Your task to perform on an android device: Go to Android settings Image 0: 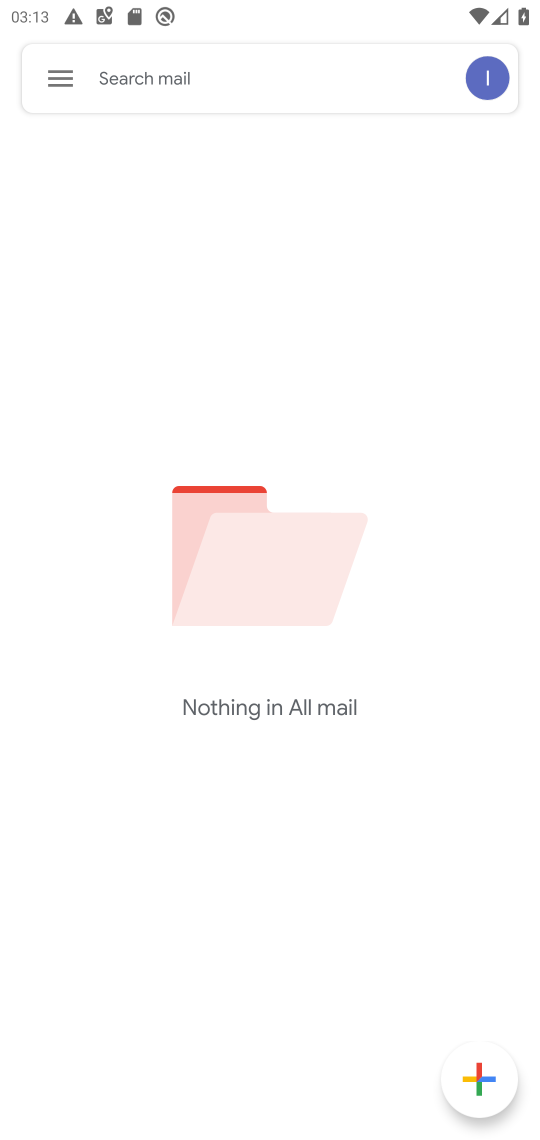
Step 0: press home button
Your task to perform on an android device: Go to Android settings Image 1: 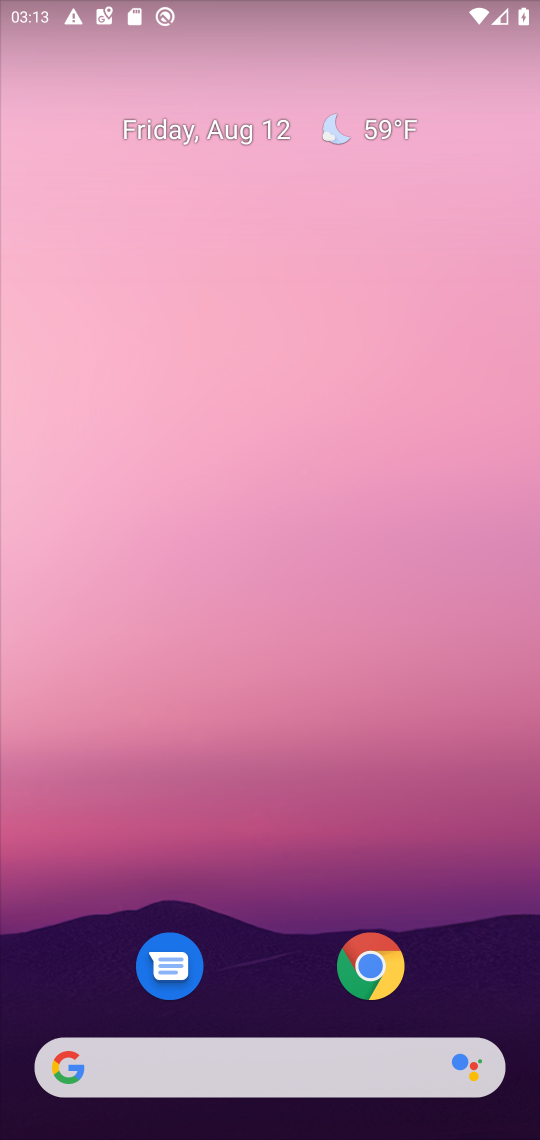
Step 1: drag from (277, 920) to (229, 14)
Your task to perform on an android device: Go to Android settings Image 2: 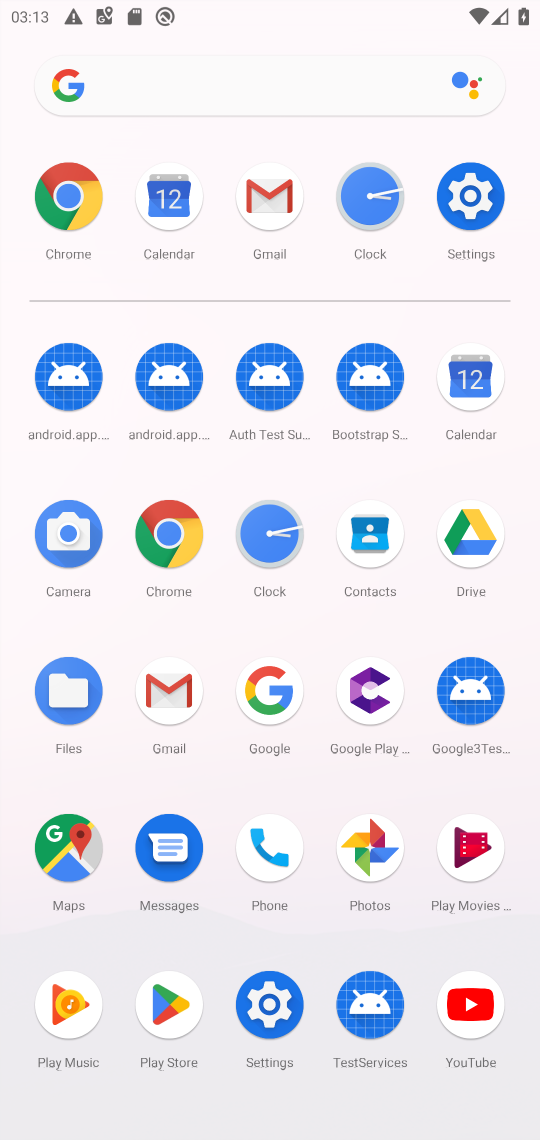
Step 2: click (260, 997)
Your task to perform on an android device: Go to Android settings Image 3: 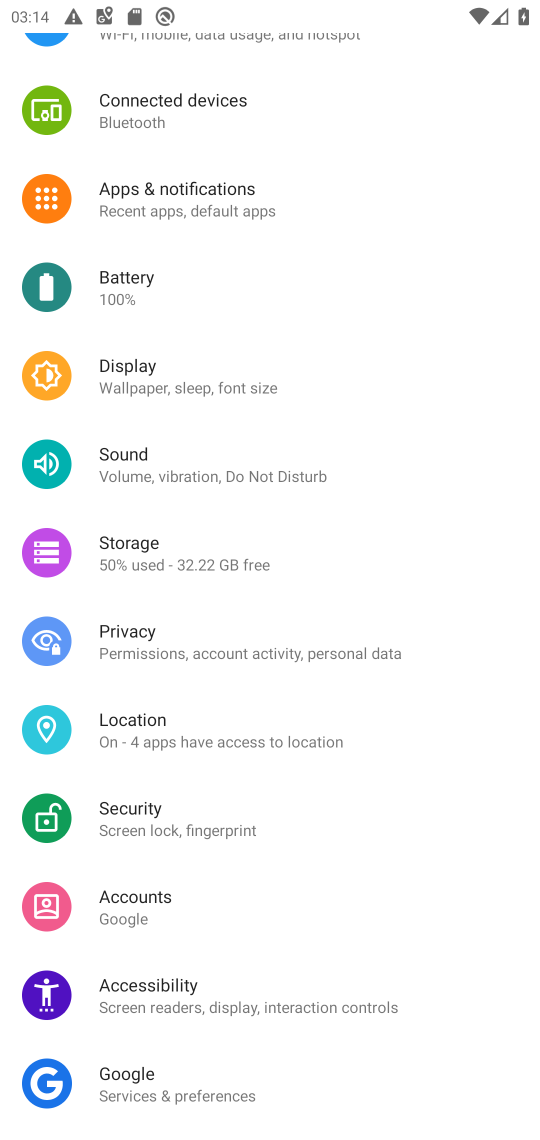
Step 3: task complete